Your task to perform on an android device: turn on improve location accuracy Image 0: 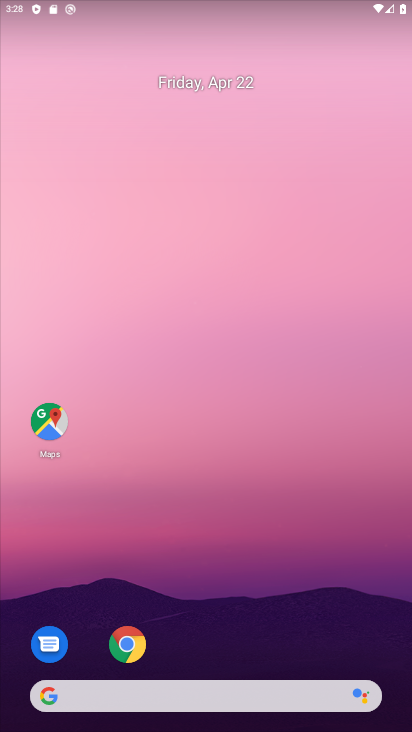
Step 0: drag from (197, 561) to (172, 78)
Your task to perform on an android device: turn on improve location accuracy Image 1: 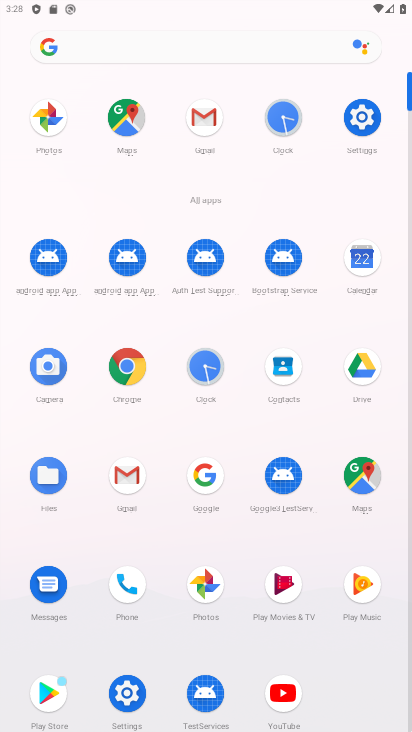
Step 1: click (124, 692)
Your task to perform on an android device: turn on improve location accuracy Image 2: 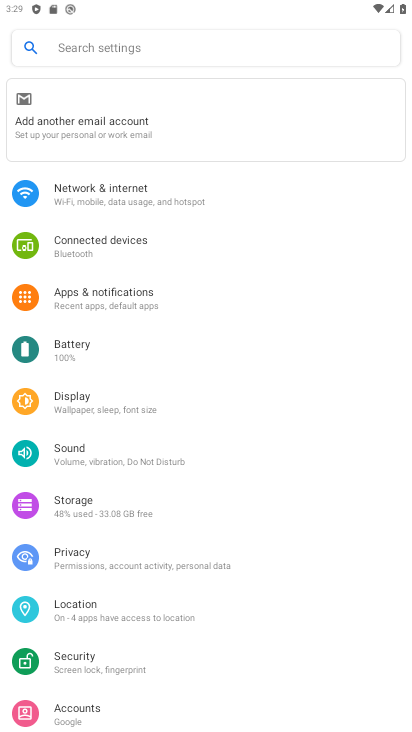
Step 2: click (70, 603)
Your task to perform on an android device: turn on improve location accuracy Image 3: 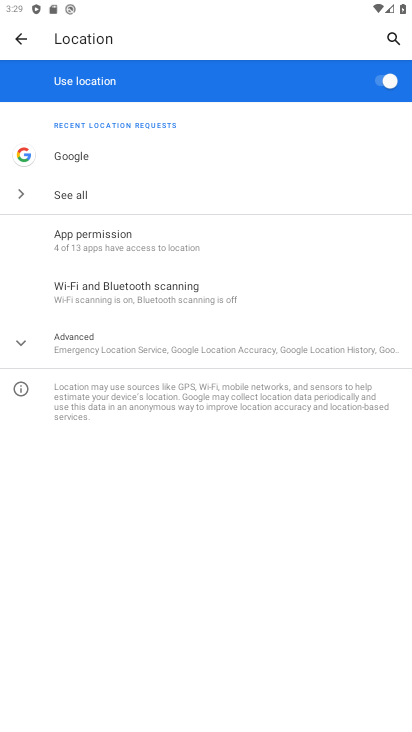
Step 3: click (97, 343)
Your task to perform on an android device: turn on improve location accuracy Image 4: 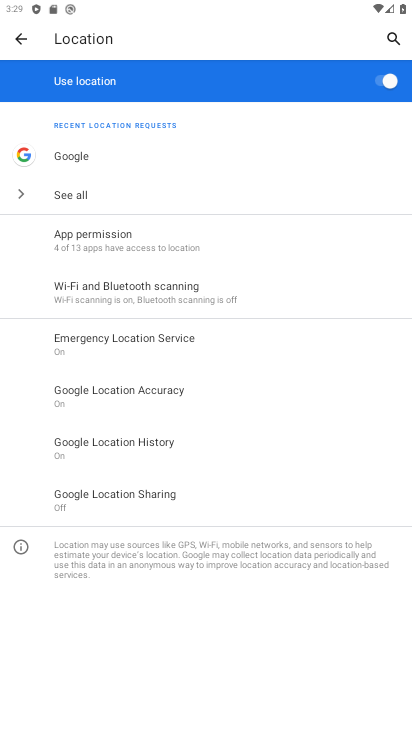
Step 4: click (93, 388)
Your task to perform on an android device: turn on improve location accuracy Image 5: 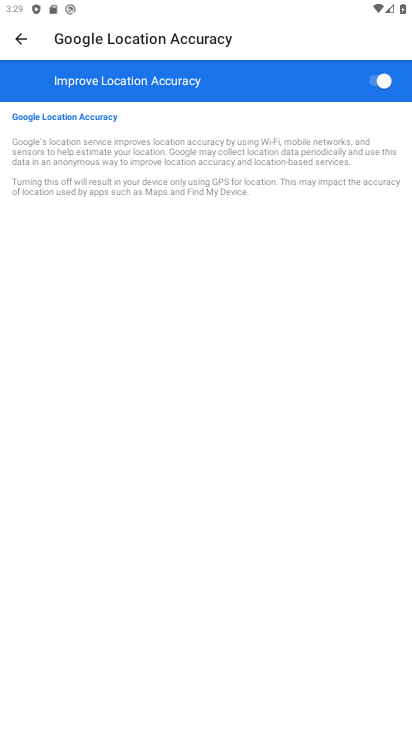
Step 5: task complete